Your task to perform on an android device: check out phone information Image 0: 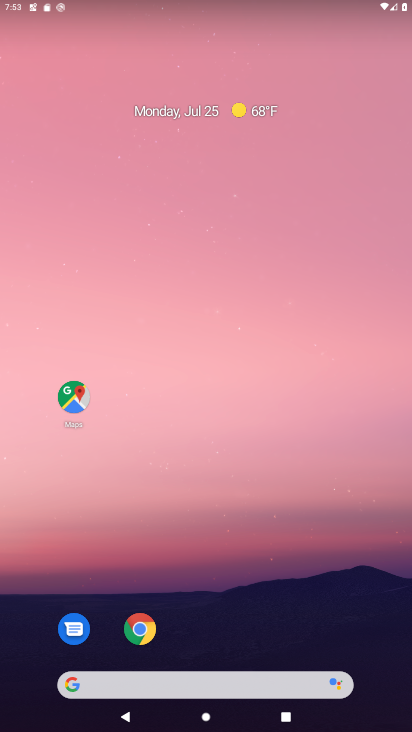
Step 0: drag from (227, 603) to (218, 150)
Your task to perform on an android device: check out phone information Image 1: 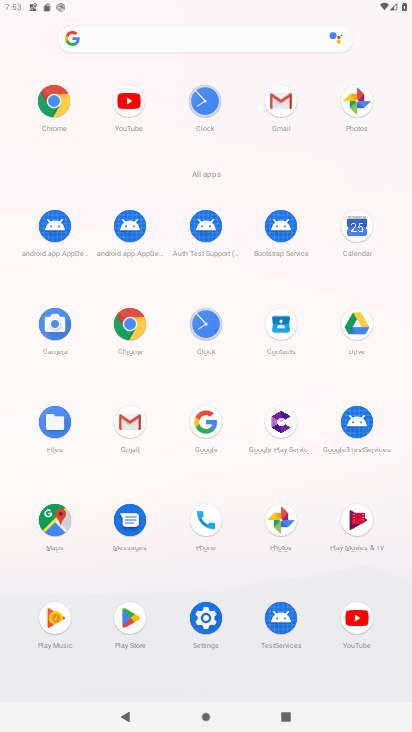
Step 1: click (220, 612)
Your task to perform on an android device: check out phone information Image 2: 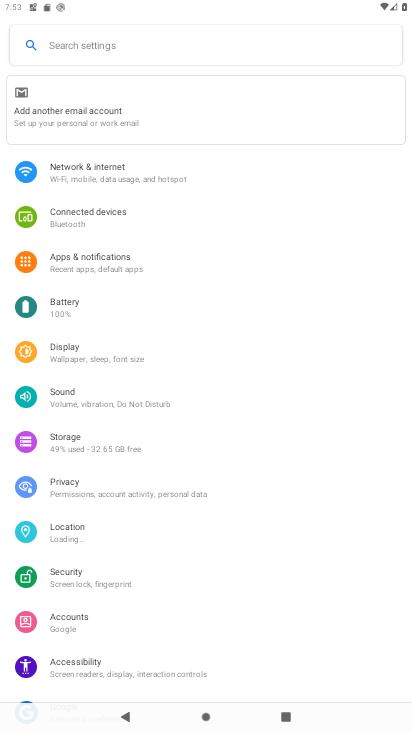
Step 2: drag from (230, 653) to (210, 208)
Your task to perform on an android device: check out phone information Image 3: 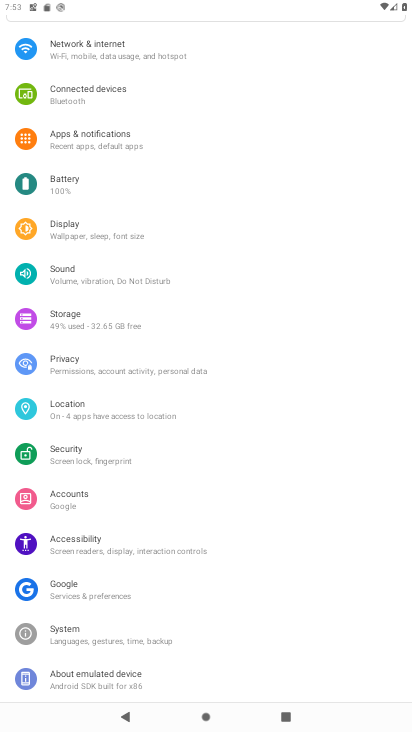
Step 3: click (99, 682)
Your task to perform on an android device: check out phone information Image 4: 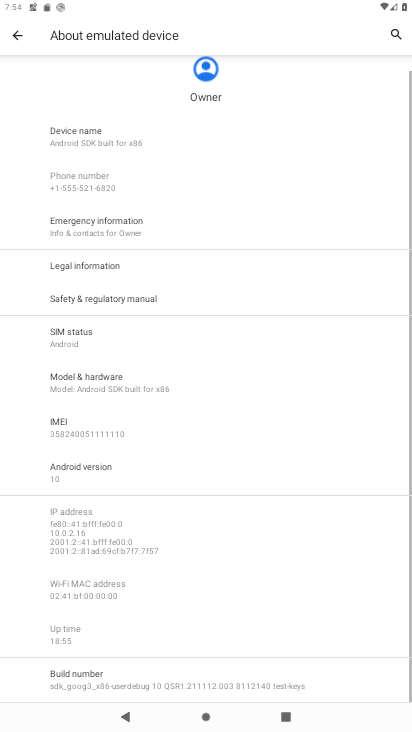
Step 4: task complete